Your task to perform on an android device: What's the weather? Image 0: 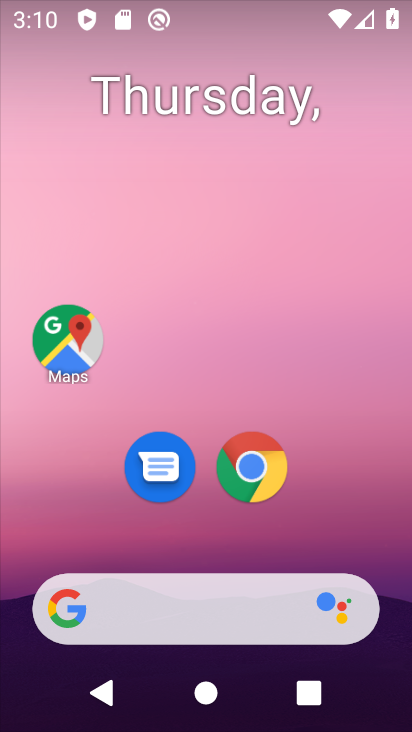
Step 0: drag from (29, 244) to (404, 262)
Your task to perform on an android device: What's the weather? Image 1: 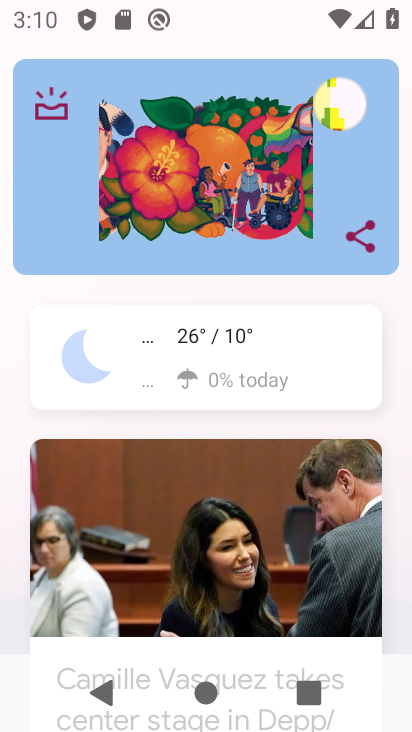
Step 1: click (93, 374)
Your task to perform on an android device: What's the weather? Image 2: 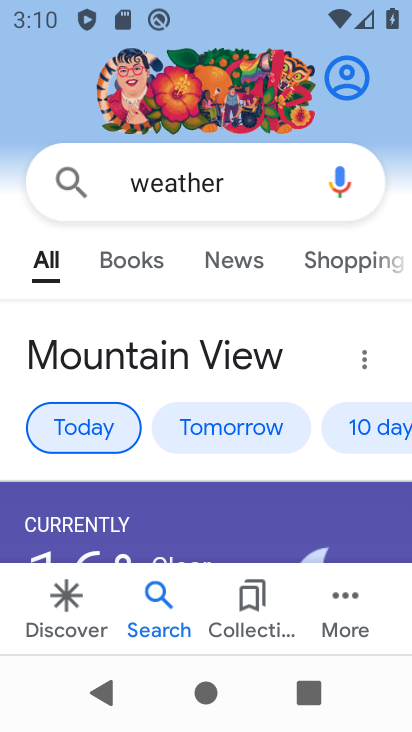
Step 2: task complete